Your task to perform on an android device: What's on my calendar today? Image 0: 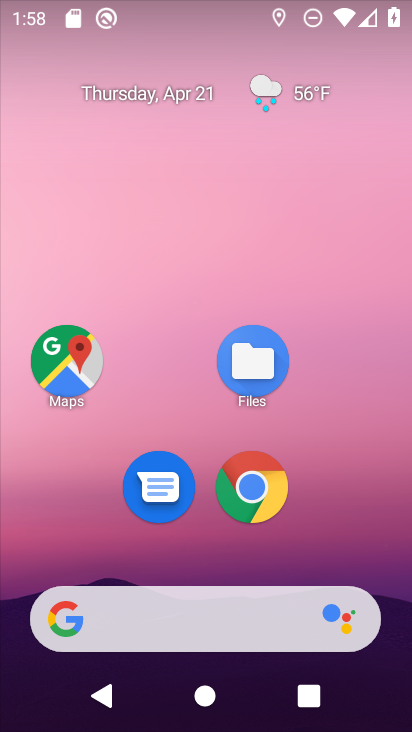
Step 0: drag from (350, 521) to (353, 163)
Your task to perform on an android device: What's on my calendar today? Image 1: 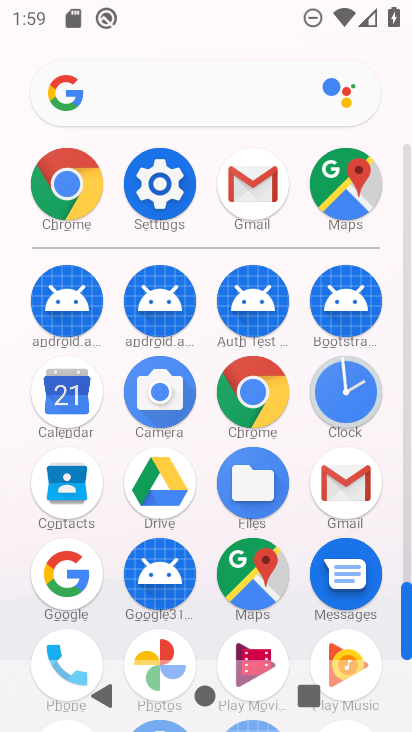
Step 1: drag from (284, 616) to (303, 349)
Your task to perform on an android device: What's on my calendar today? Image 2: 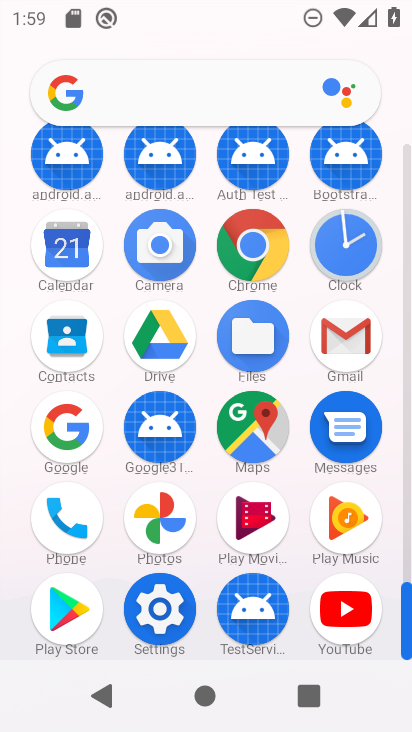
Step 2: click (51, 263)
Your task to perform on an android device: What's on my calendar today? Image 3: 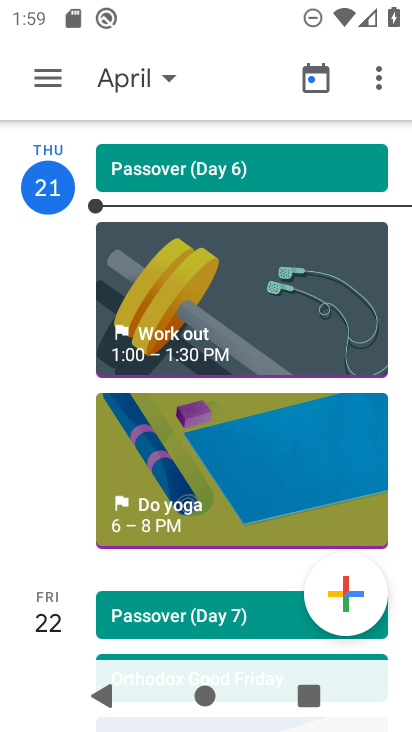
Step 3: task complete